Your task to perform on an android device: turn on location history Image 0: 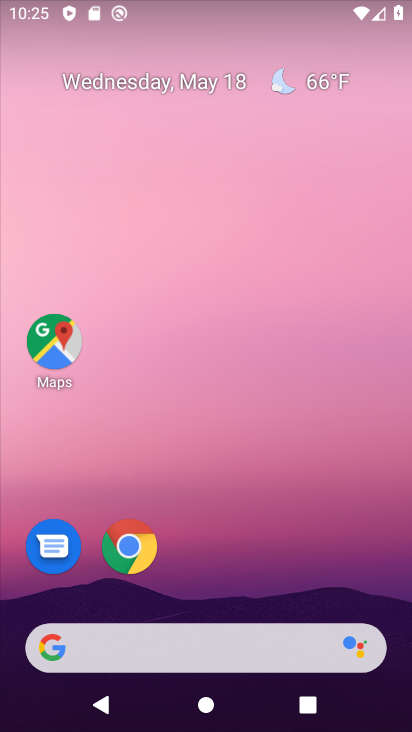
Step 0: drag from (172, 613) to (362, 41)
Your task to perform on an android device: turn on location history Image 1: 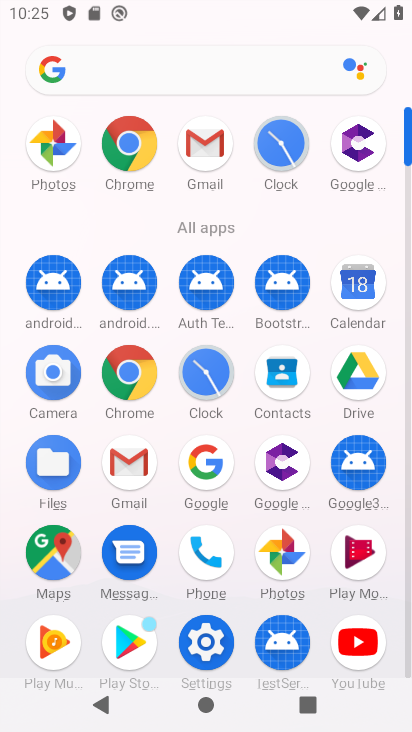
Step 1: click (206, 633)
Your task to perform on an android device: turn on location history Image 2: 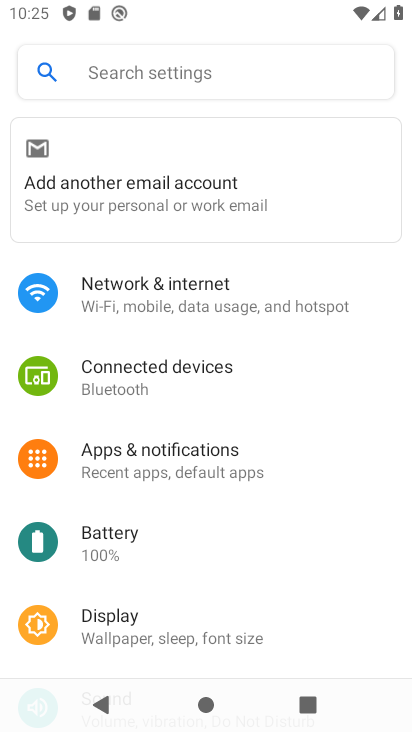
Step 2: drag from (212, 602) to (251, 227)
Your task to perform on an android device: turn on location history Image 3: 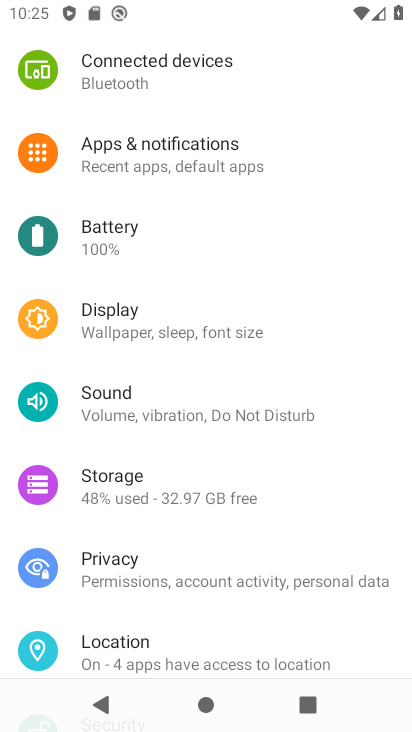
Step 3: click (141, 652)
Your task to perform on an android device: turn on location history Image 4: 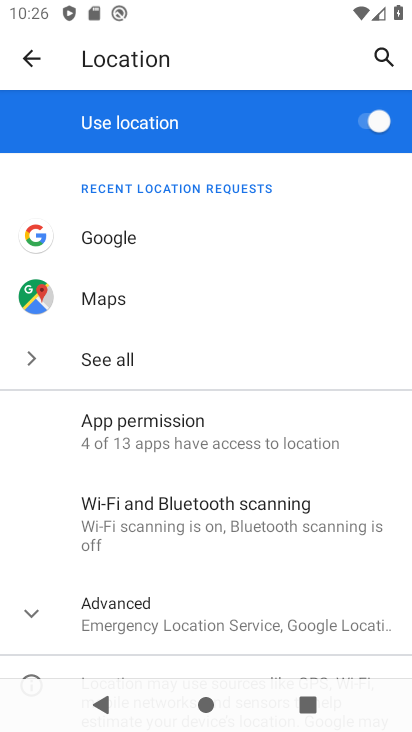
Step 4: click (121, 610)
Your task to perform on an android device: turn on location history Image 5: 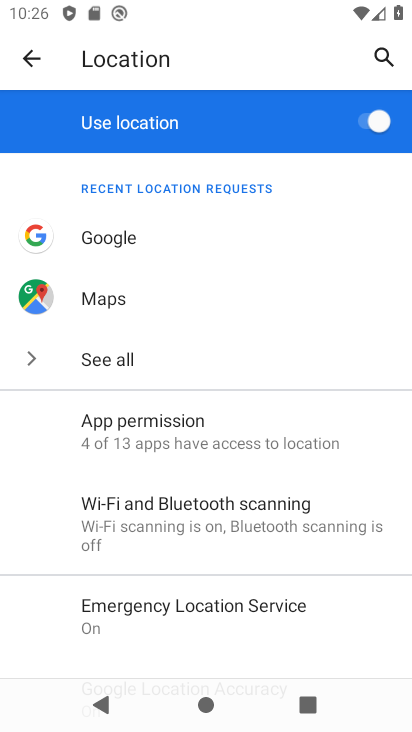
Step 5: drag from (121, 610) to (215, 44)
Your task to perform on an android device: turn on location history Image 6: 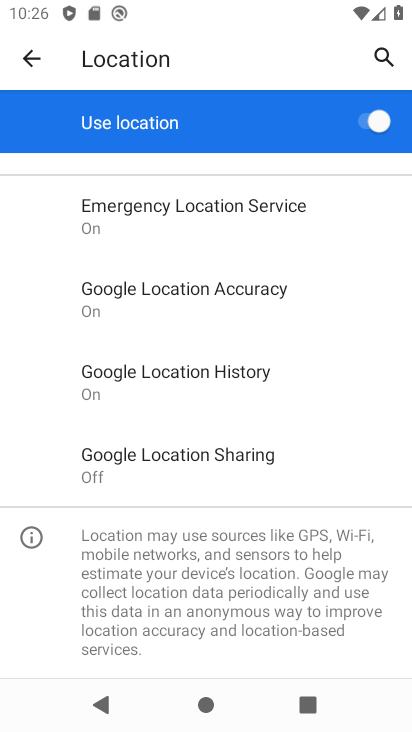
Step 6: click (204, 393)
Your task to perform on an android device: turn on location history Image 7: 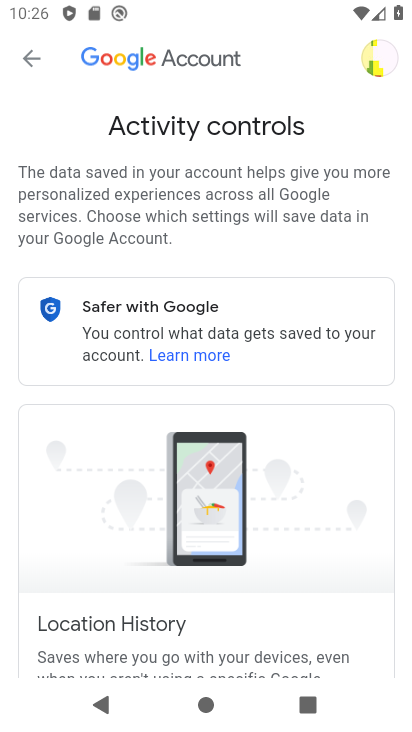
Step 7: task complete